Your task to perform on an android device: move an email to a new category in the gmail app Image 0: 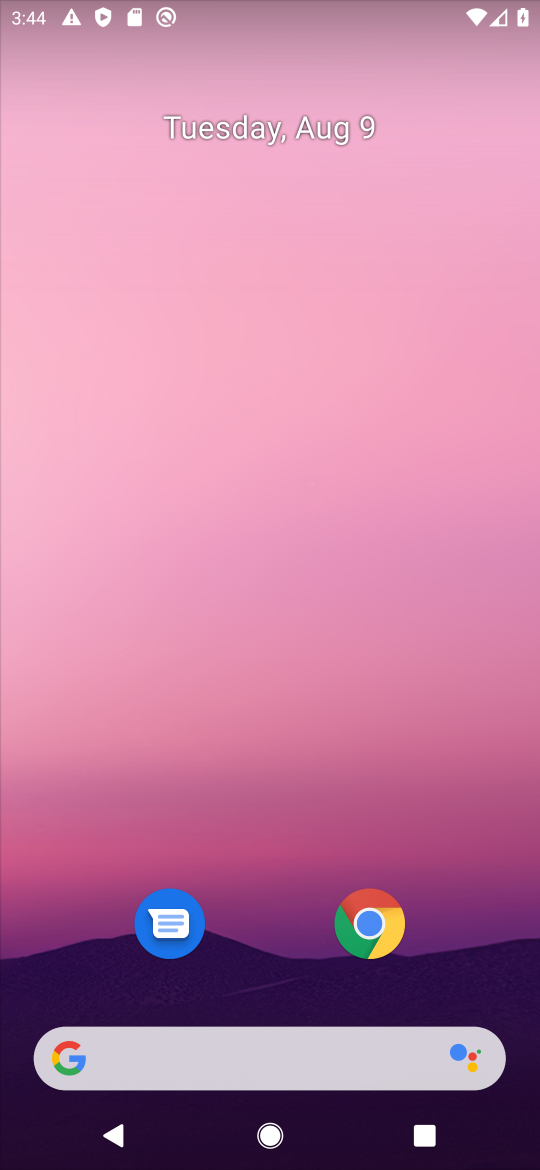
Step 0: drag from (201, 984) to (305, 91)
Your task to perform on an android device: move an email to a new category in the gmail app Image 1: 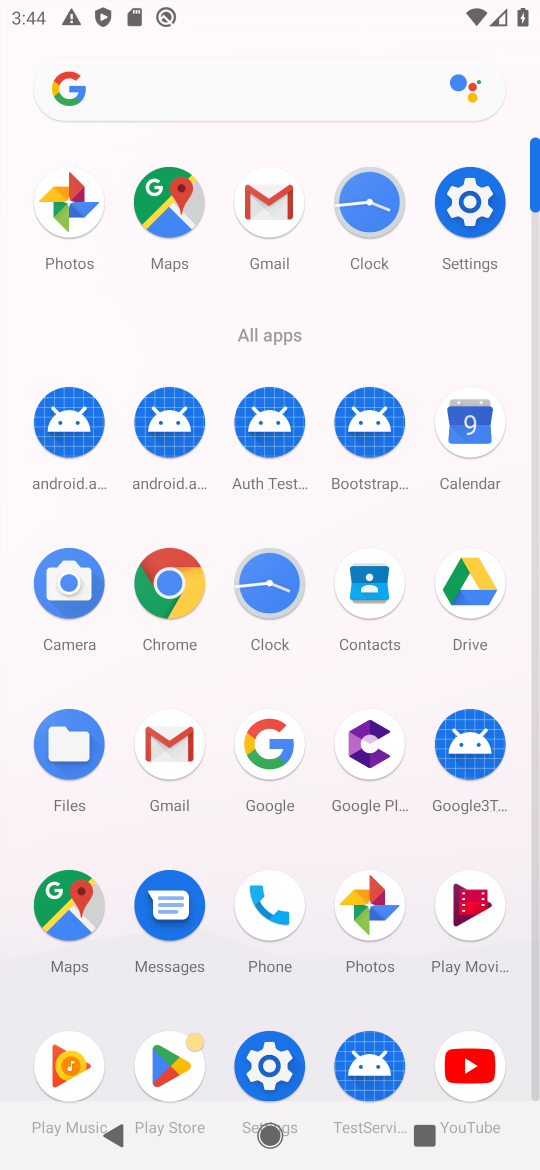
Step 1: click (262, 194)
Your task to perform on an android device: move an email to a new category in the gmail app Image 2: 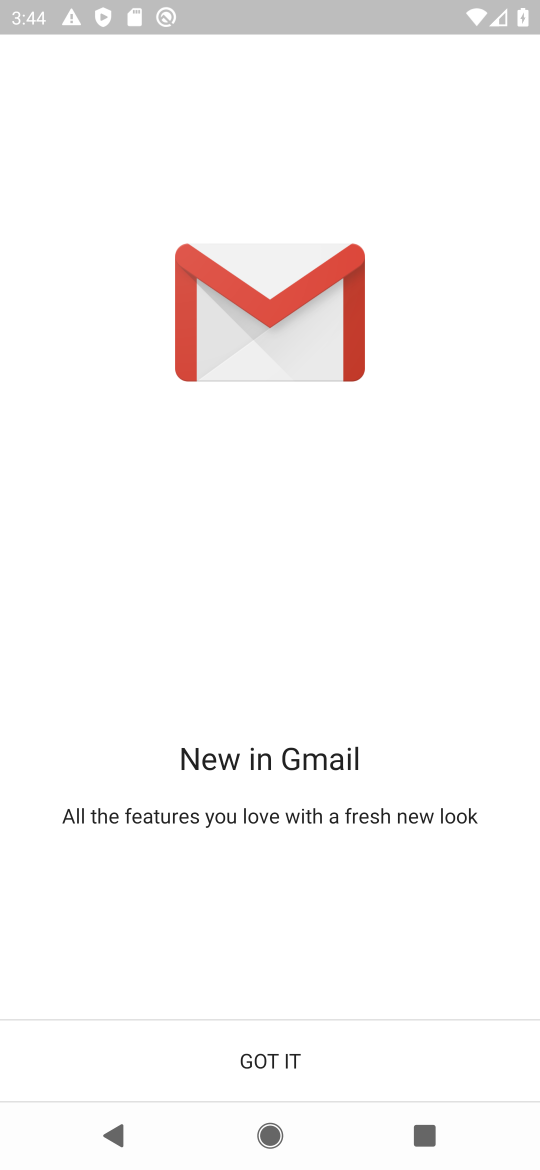
Step 2: click (271, 1067)
Your task to perform on an android device: move an email to a new category in the gmail app Image 3: 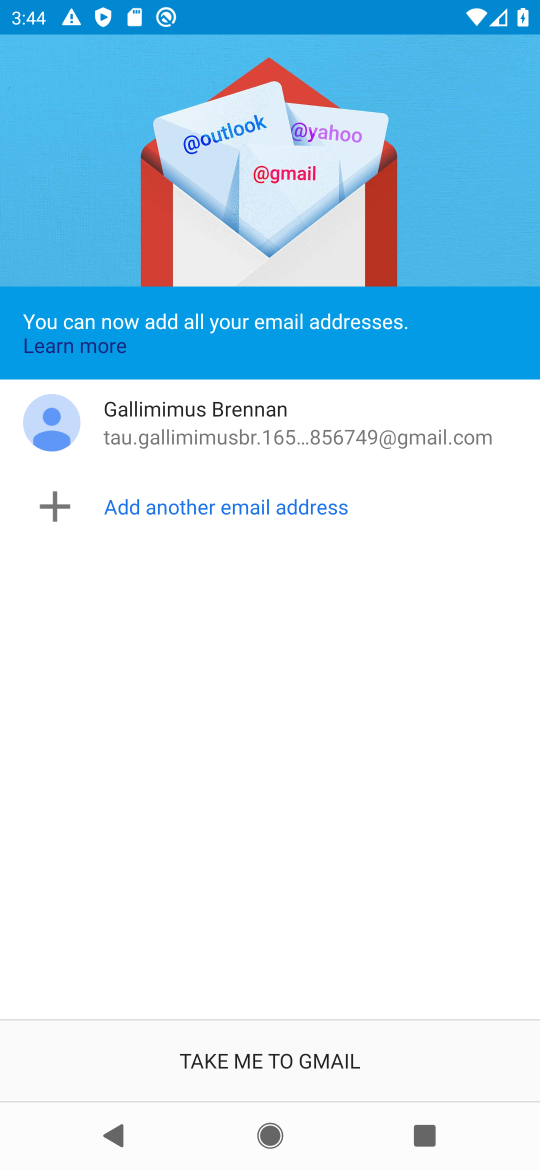
Step 3: click (282, 1064)
Your task to perform on an android device: move an email to a new category in the gmail app Image 4: 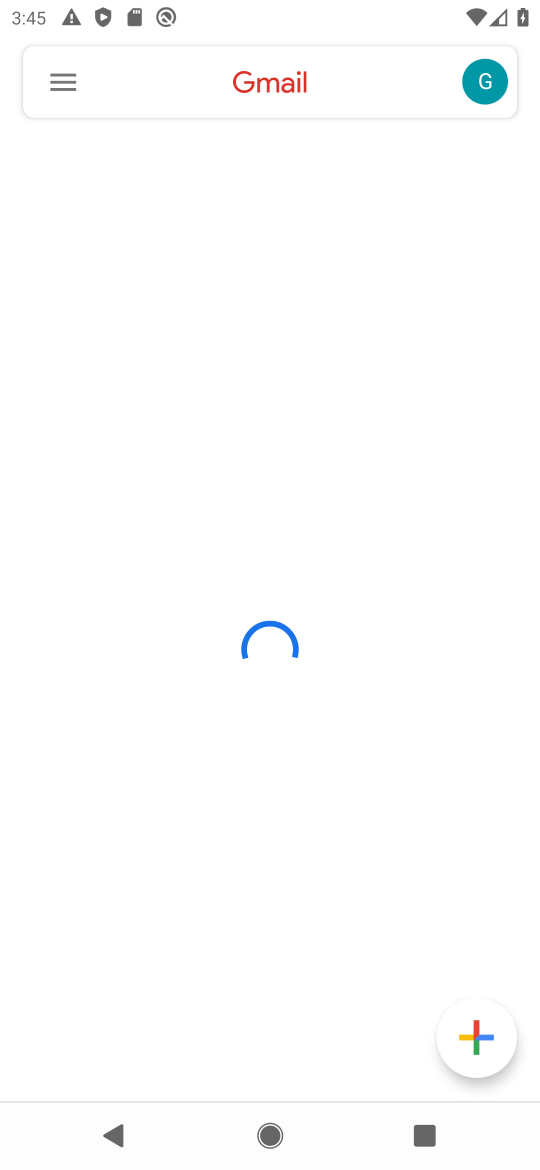
Step 4: click (61, 87)
Your task to perform on an android device: move an email to a new category in the gmail app Image 5: 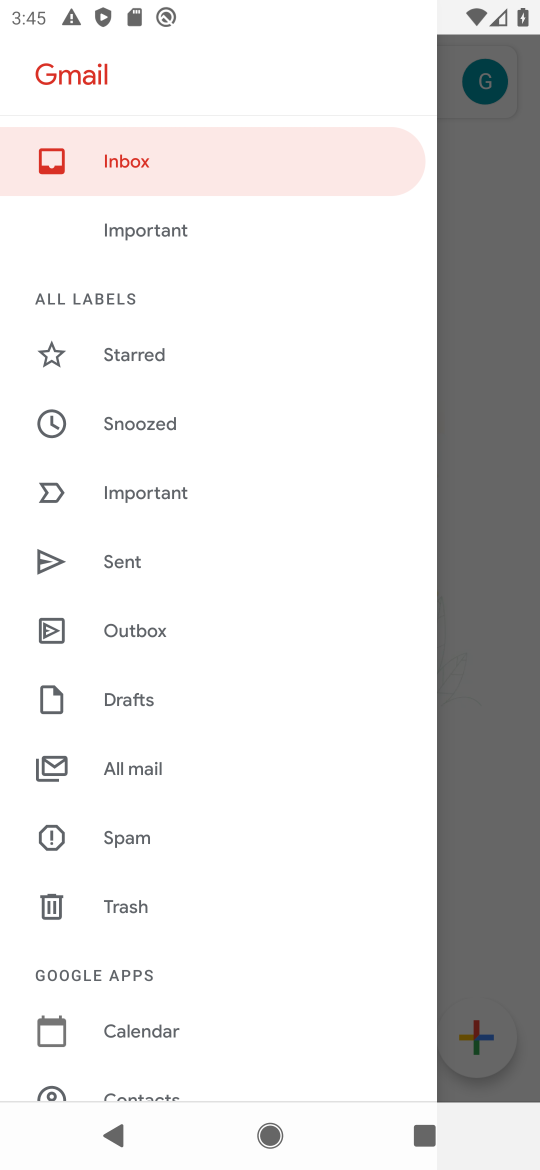
Step 5: click (172, 763)
Your task to perform on an android device: move an email to a new category in the gmail app Image 6: 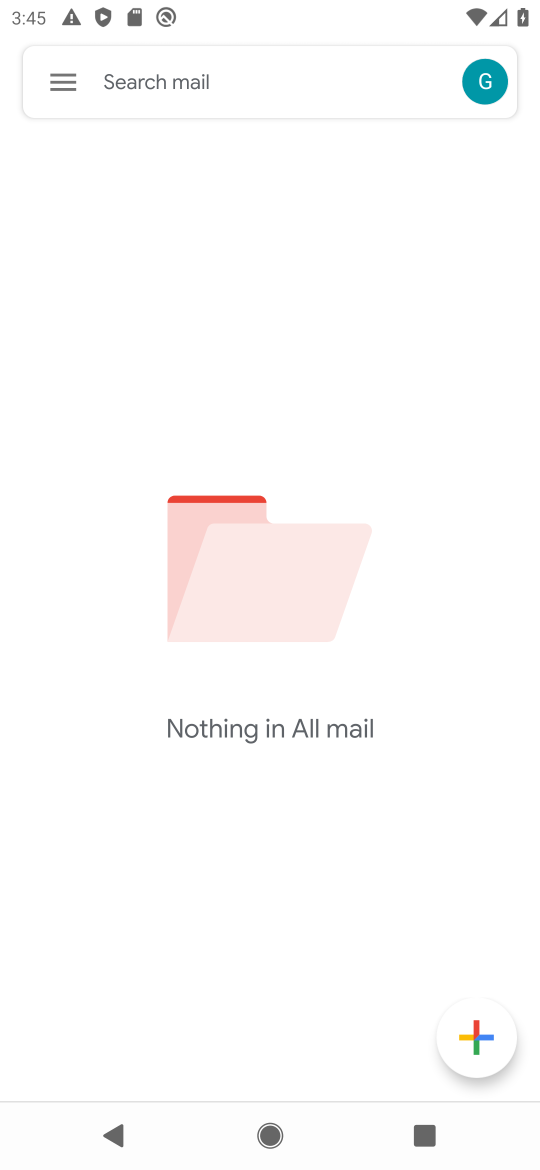
Step 6: task complete